Your task to perform on an android device: open a bookmark in the chrome app Image 0: 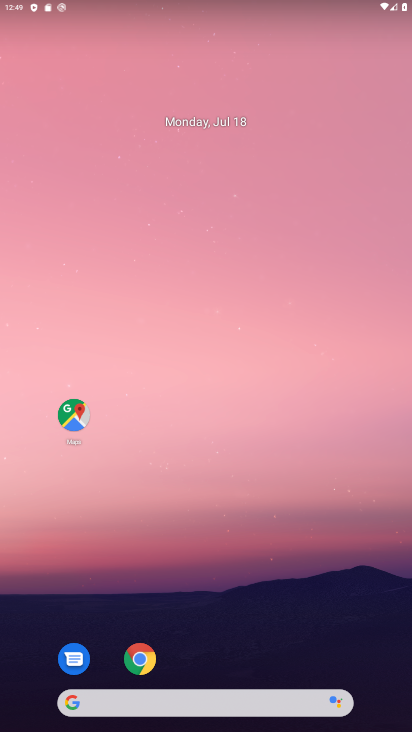
Step 0: drag from (236, 614) to (222, 124)
Your task to perform on an android device: open a bookmark in the chrome app Image 1: 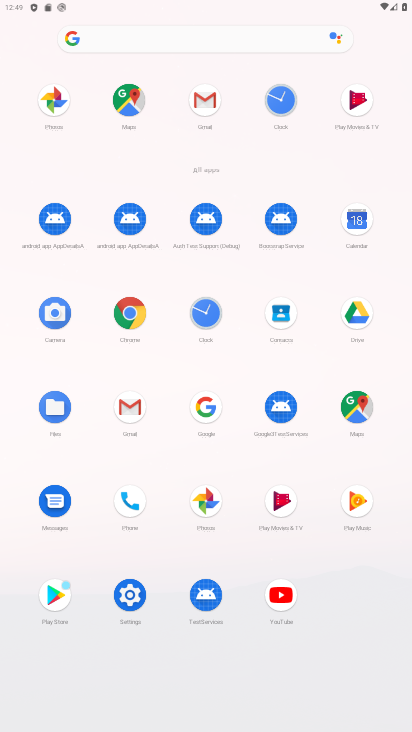
Step 1: click (134, 313)
Your task to perform on an android device: open a bookmark in the chrome app Image 2: 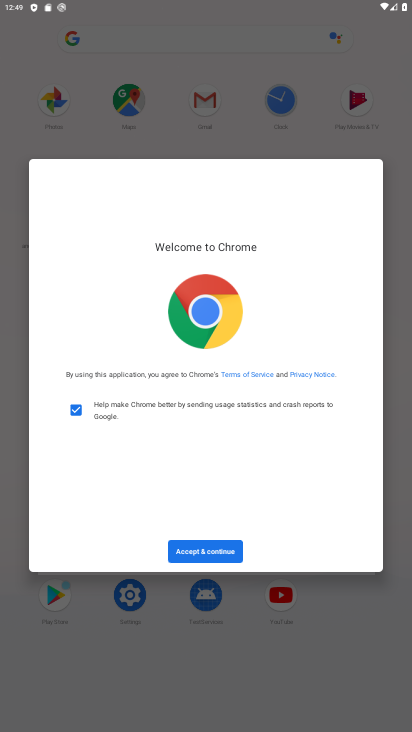
Step 2: click (192, 557)
Your task to perform on an android device: open a bookmark in the chrome app Image 3: 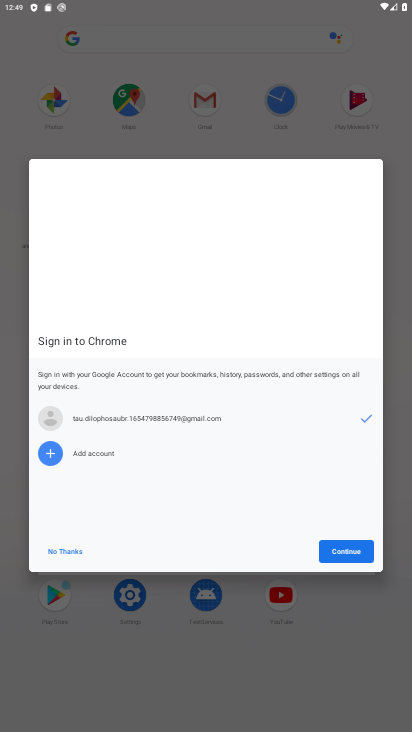
Step 3: click (351, 555)
Your task to perform on an android device: open a bookmark in the chrome app Image 4: 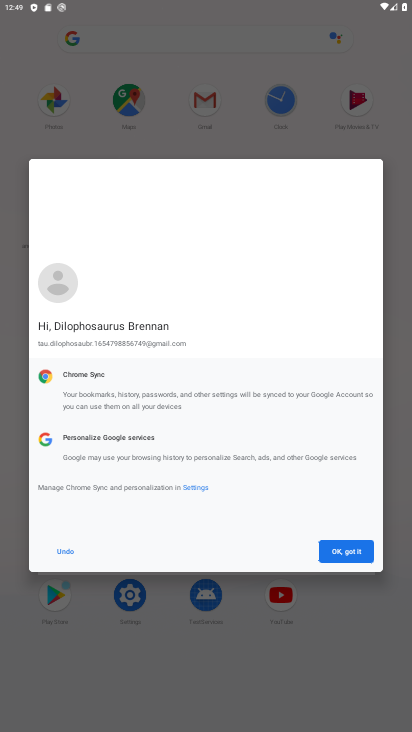
Step 4: click (351, 555)
Your task to perform on an android device: open a bookmark in the chrome app Image 5: 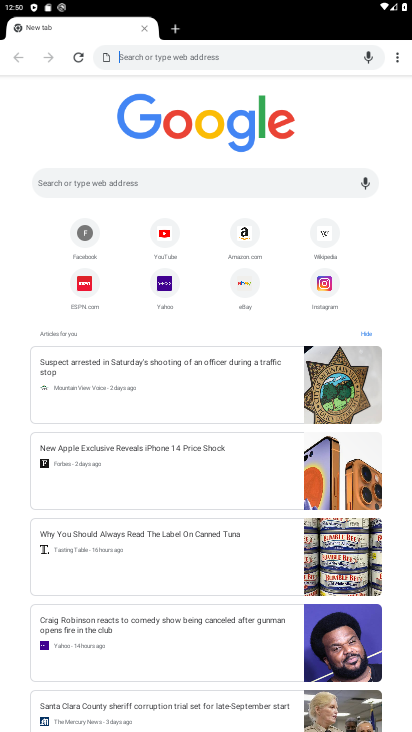
Step 5: drag from (400, 51) to (295, 119)
Your task to perform on an android device: open a bookmark in the chrome app Image 6: 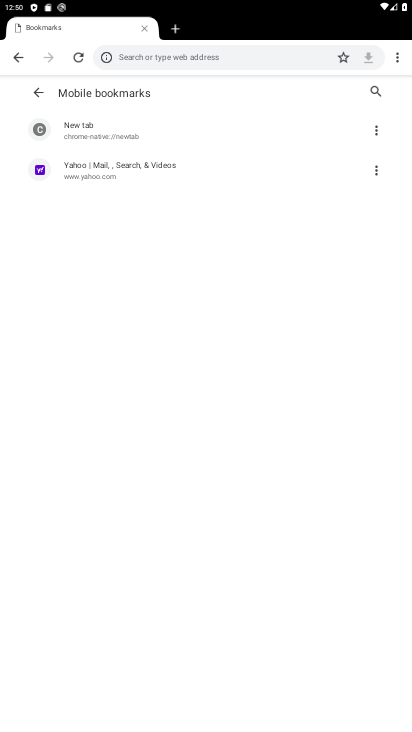
Step 6: click (82, 173)
Your task to perform on an android device: open a bookmark in the chrome app Image 7: 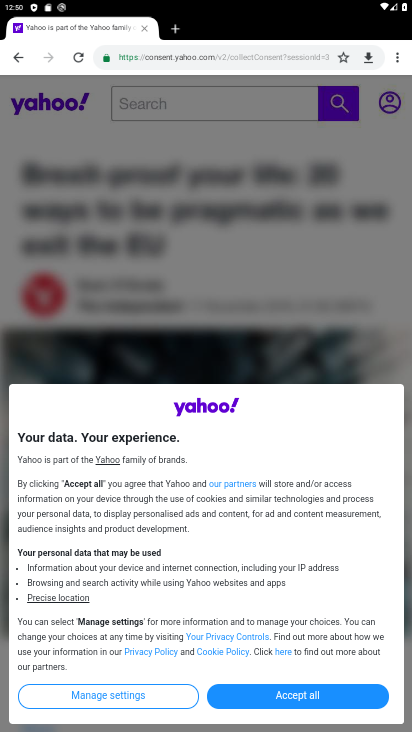
Step 7: task complete